Your task to perform on an android device: Search for pizza restaurants on Maps Image 0: 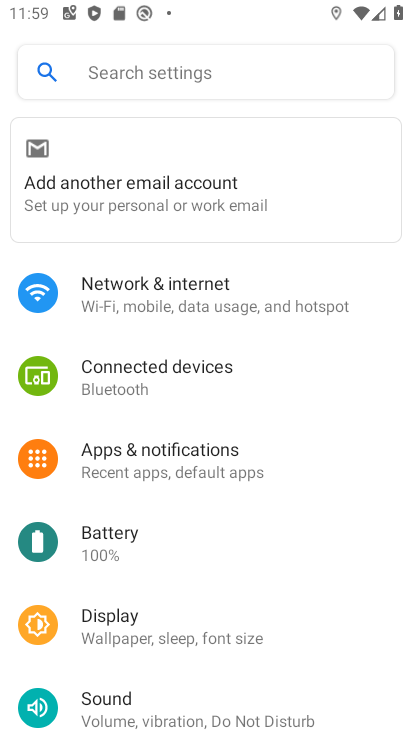
Step 0: press home button
Your task to perform on an android device: Search for pizza restaurants on Maps Image 1: 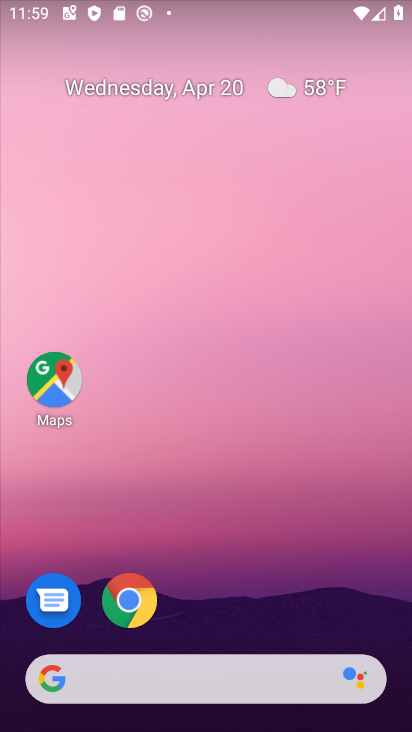
Step 1: drag from (224, 642) to (266, 11)
Your task to perform on an android device: Search for pizza restaurants on Maps Image 2: 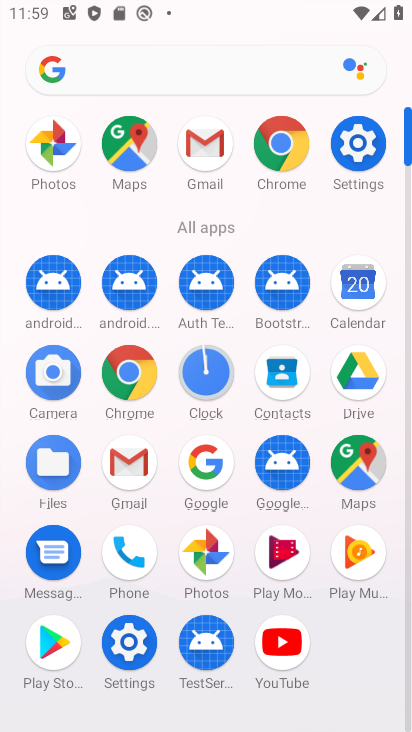
Step 2: click (348, 464)
Your task to perform on an android device: Search for pizza restaurants on Maps Image 3: 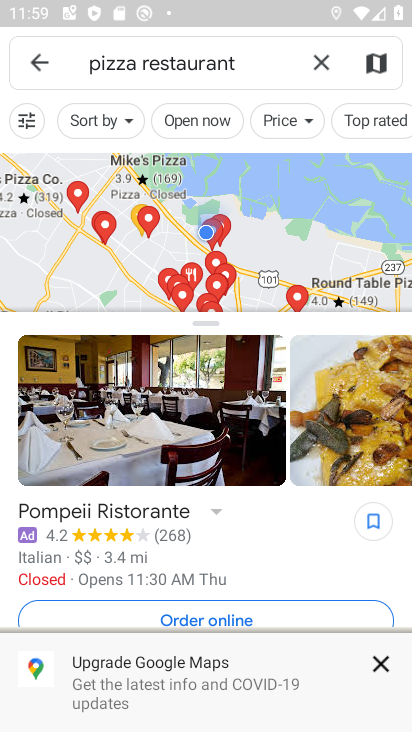
Step 3: task complete